Your task to perform on an android device: open wifi settings Image 0: 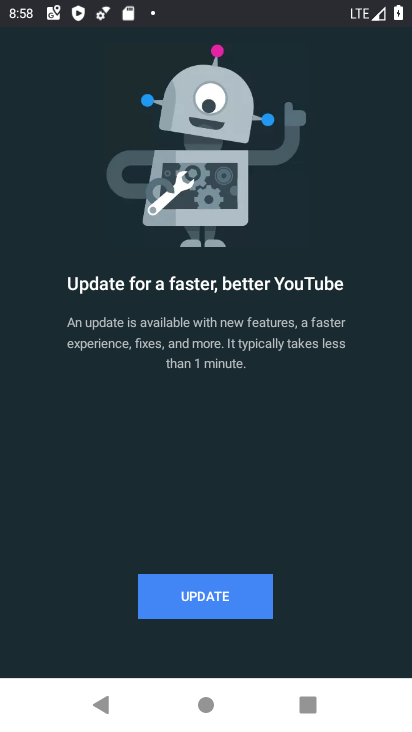
Step 0: press home button
Your task to perform on an android device: open wifi settings Image 1: 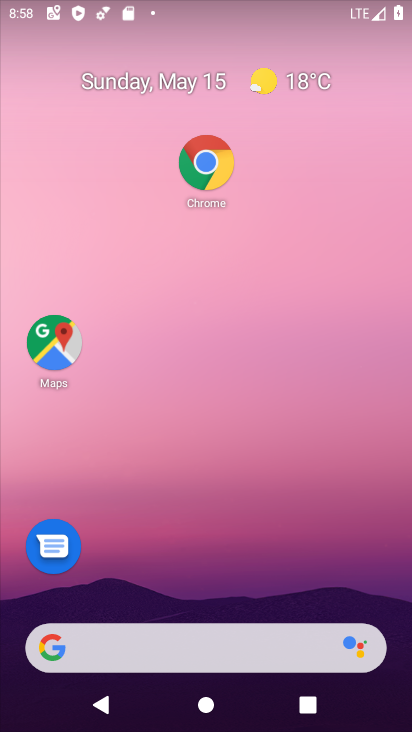
Step 1: drag from (282, 539) to (309, 243)
Your task to perform on an android device: open wifi settings Image 2: 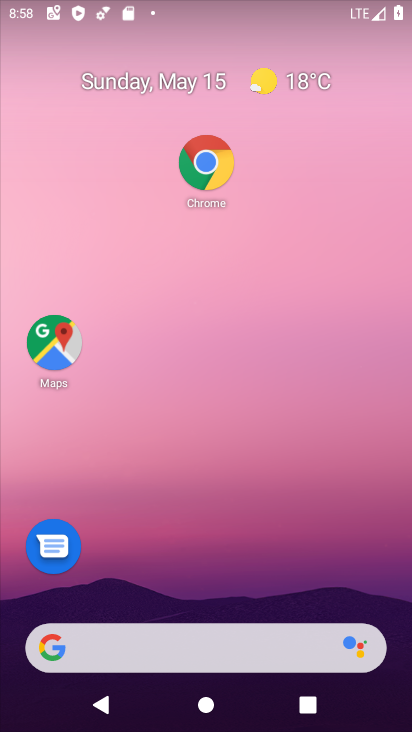
Step 2: drag from (255, 572) to (286, 214)
Your task to perform on an android device: open wifi settings Image 3: 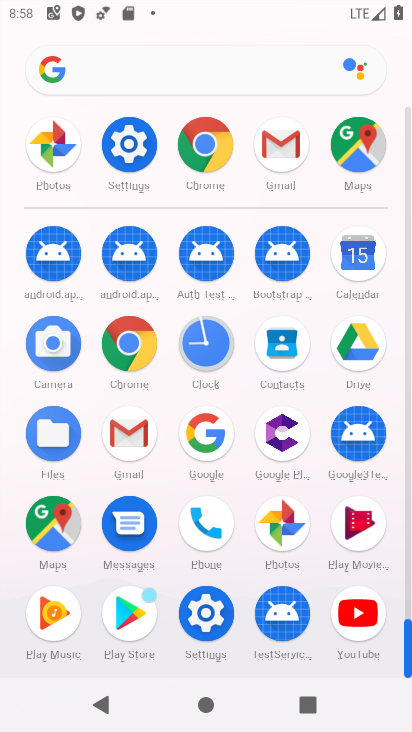
Step 3: click (132, 137)
Your task to perform on an android device: open wifi settings Image 4: 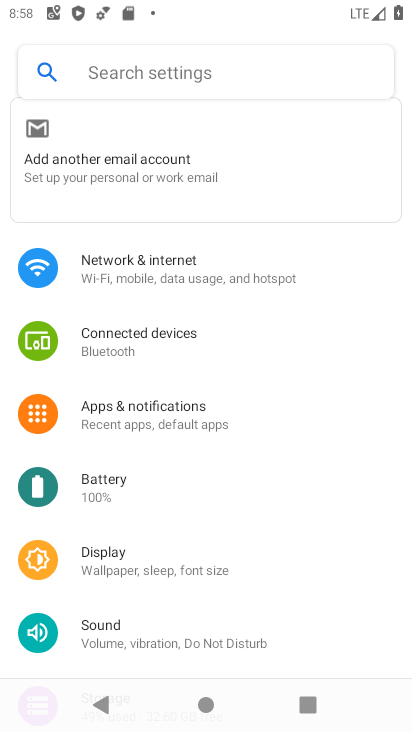
Step 4: click (180, 254)
Your task to perform on an android device: open wifi settings Image 5: 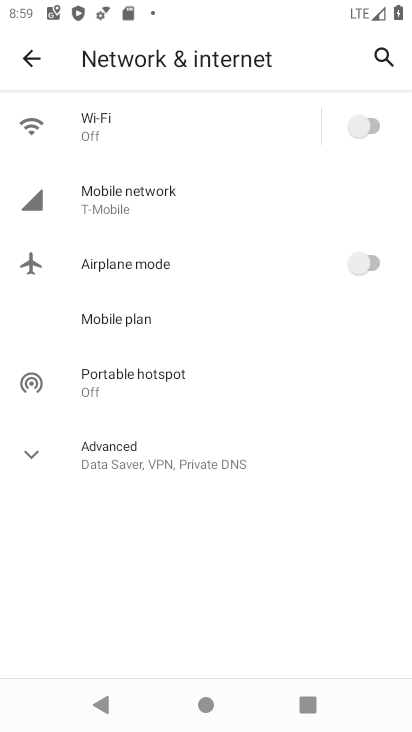
Step 5: task complete